Your task to perform on an android device: Open Youtube and go to the subscriptions tab Image 0: 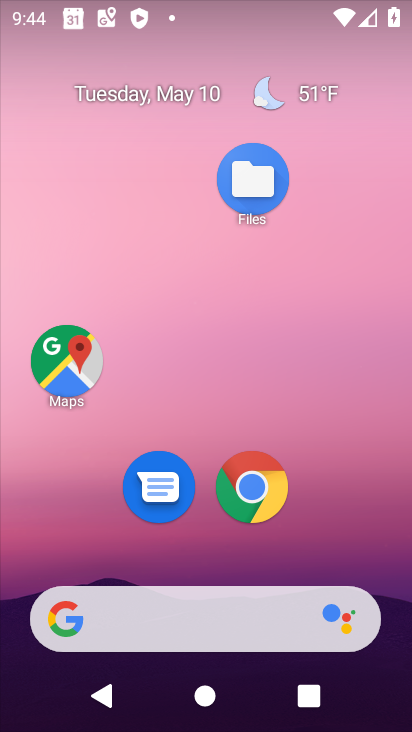
Step 0: drag from (210, 550) to (289, 20)
Your task to perform on an android device: Open Youtube and go to the subscriptions tab Image 1: 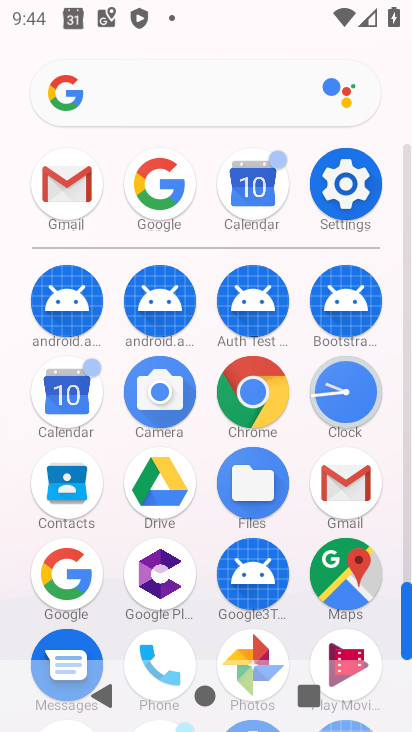
Step 1: drag from (209, 533) to (273, 35)
Your task to perform on an android device: Open Youtube and go to the subscriptions tab Image 2: 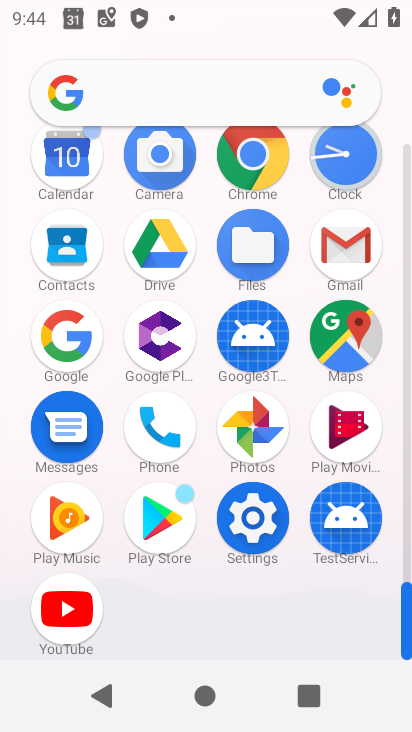
Step 2: click (64, 608)
Your task to perform on an android device: Open Youtube and go to the subscriptions tab Image 3: 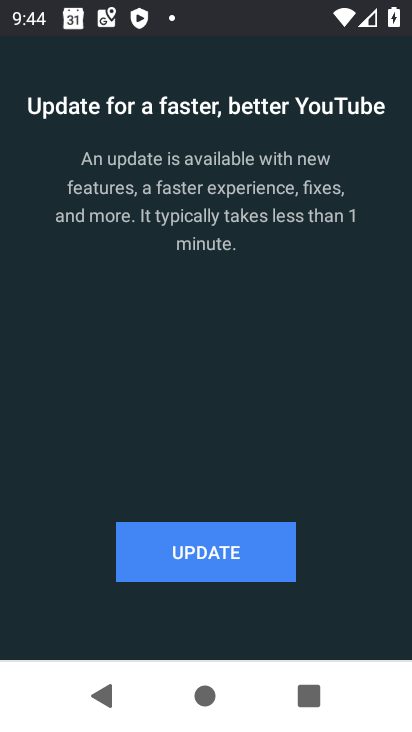
Step 3: click (206, 555)
Your task to perform on an android device: Open Youtube and go to the subscriptions tab Image 4: 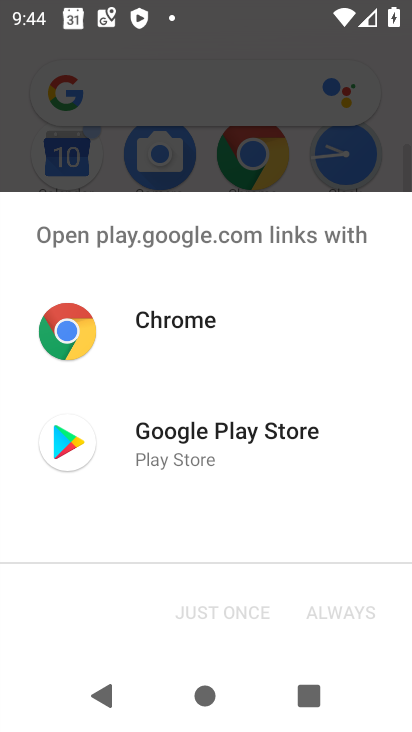
Step 4: click (173, 445)
Your task to perform on an android device: Open Youtube and go to the subscriptions tab Image 5: 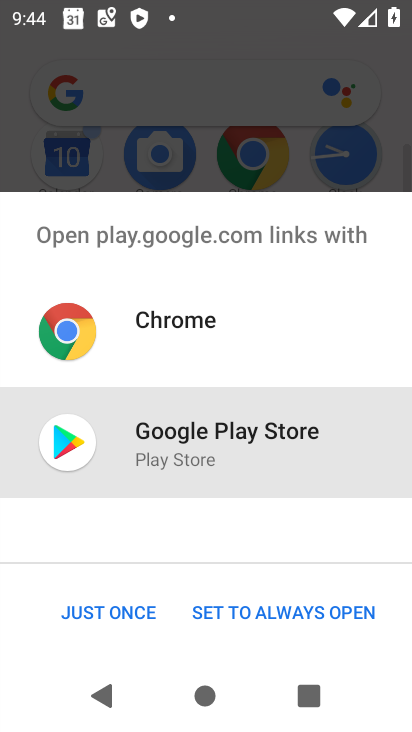
Step 5: click (118, 617)
Your task to perform on an android device: Open Youtube and go to the subscriptions tab Image 6: 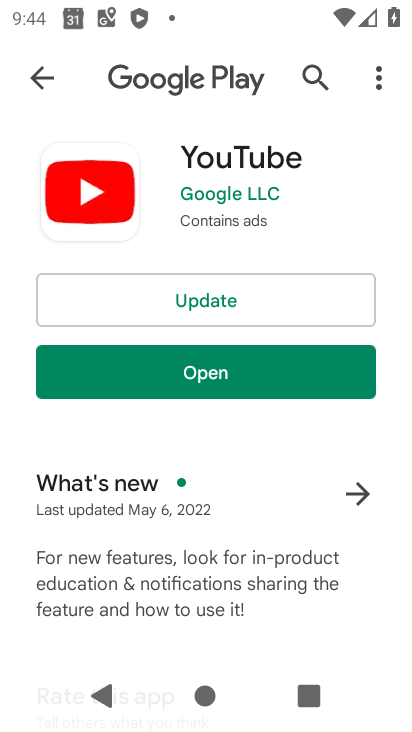
Step 6: click (185, 300)
Your task to perform on an android device: Open Youtube and go to the subscriptions tab Image 7: 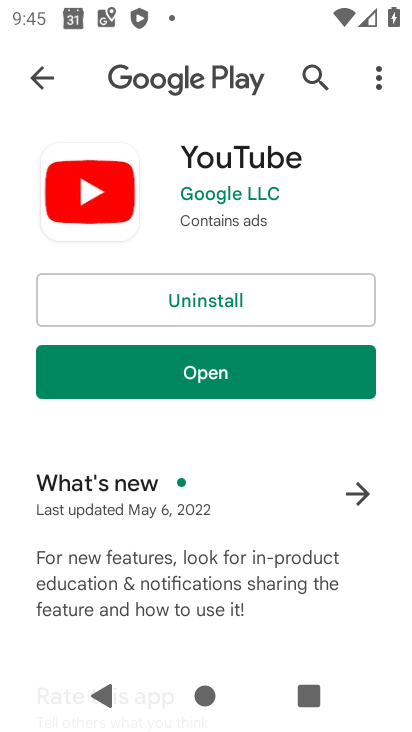
Step 7: click (232, 366)
Your task to perform on an android device: Open Youtube and go to the subscriptions tab Image 8: 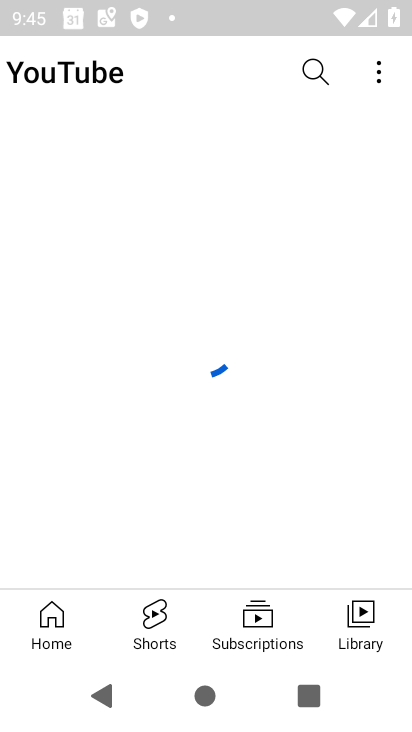
Step 8: click (266, 619)
Your task to perform on an android device: Open Youtube and go to the subscriptions tab Image 9: 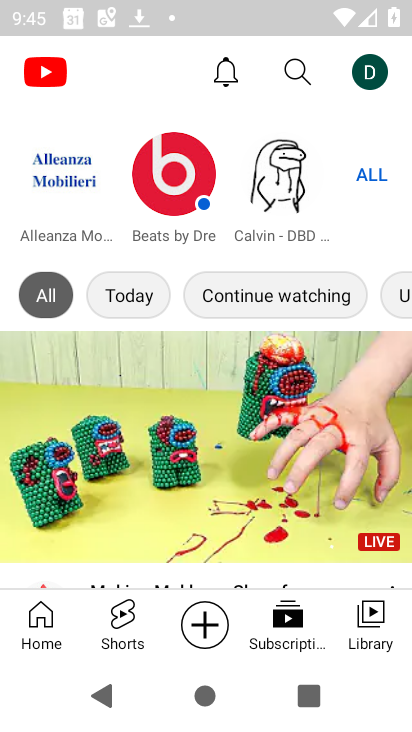
Step 9: task complete